Your task to perform on an android device: check out phone information Image 0: 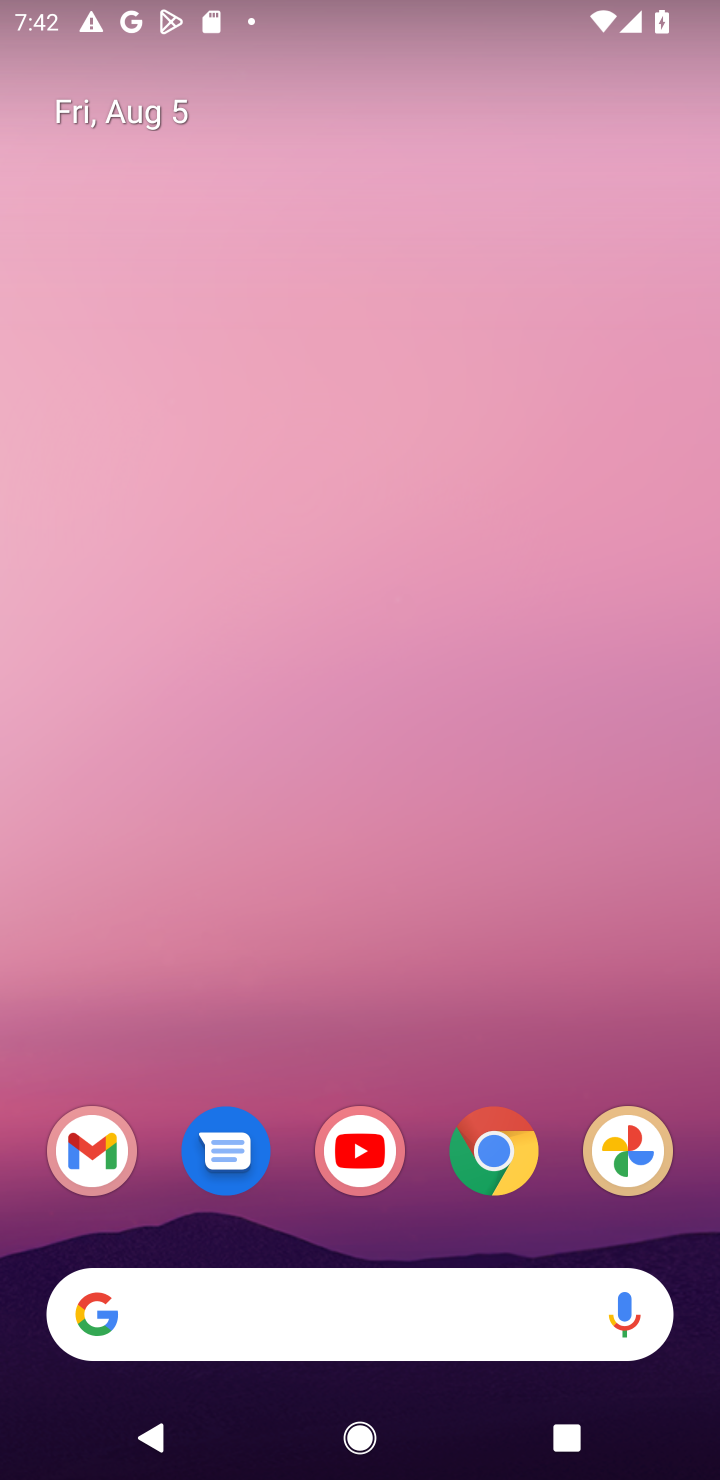
Step 0: drag from (299, 709) to (321, 19)
Your task to perform on an android device: check out phone information Image 1: 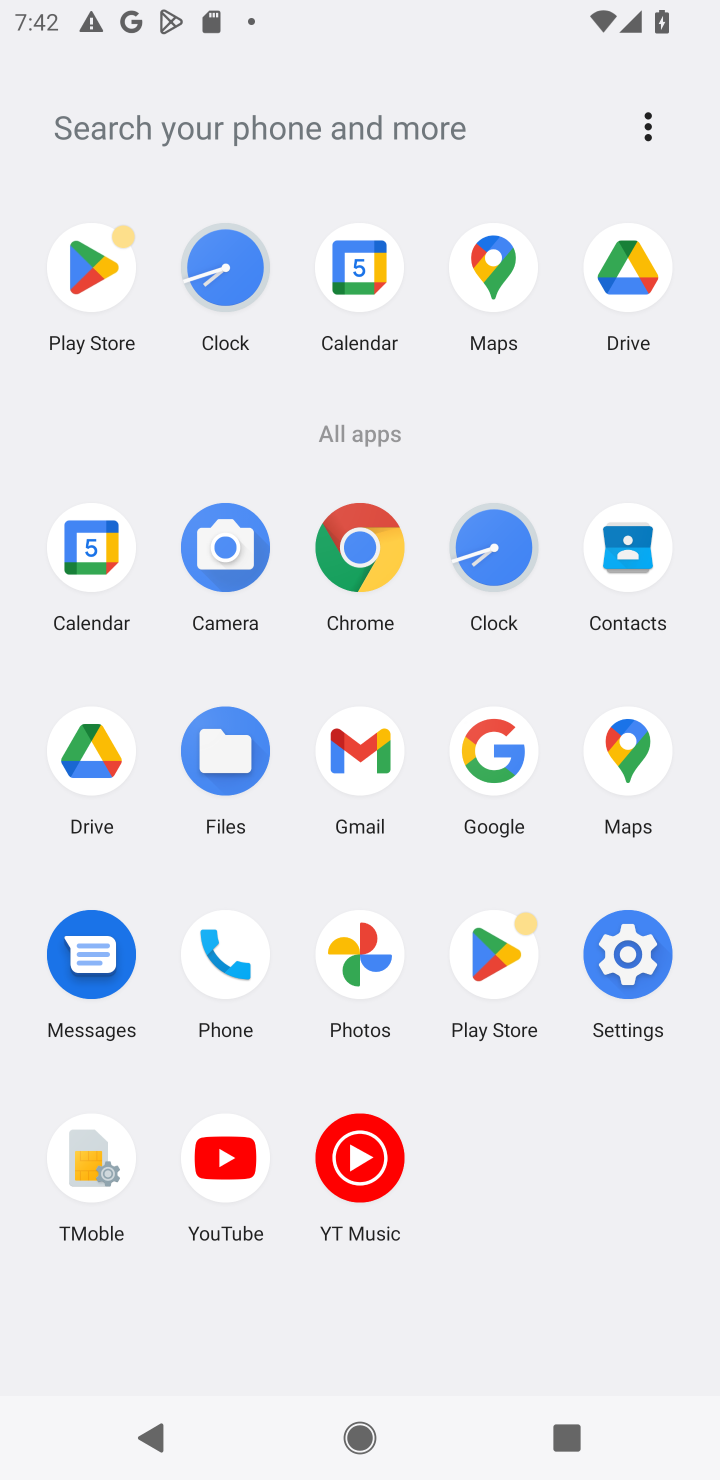
Step 1: click (643, 984)
Your task to perform on an android device: check out phone information Image 2: 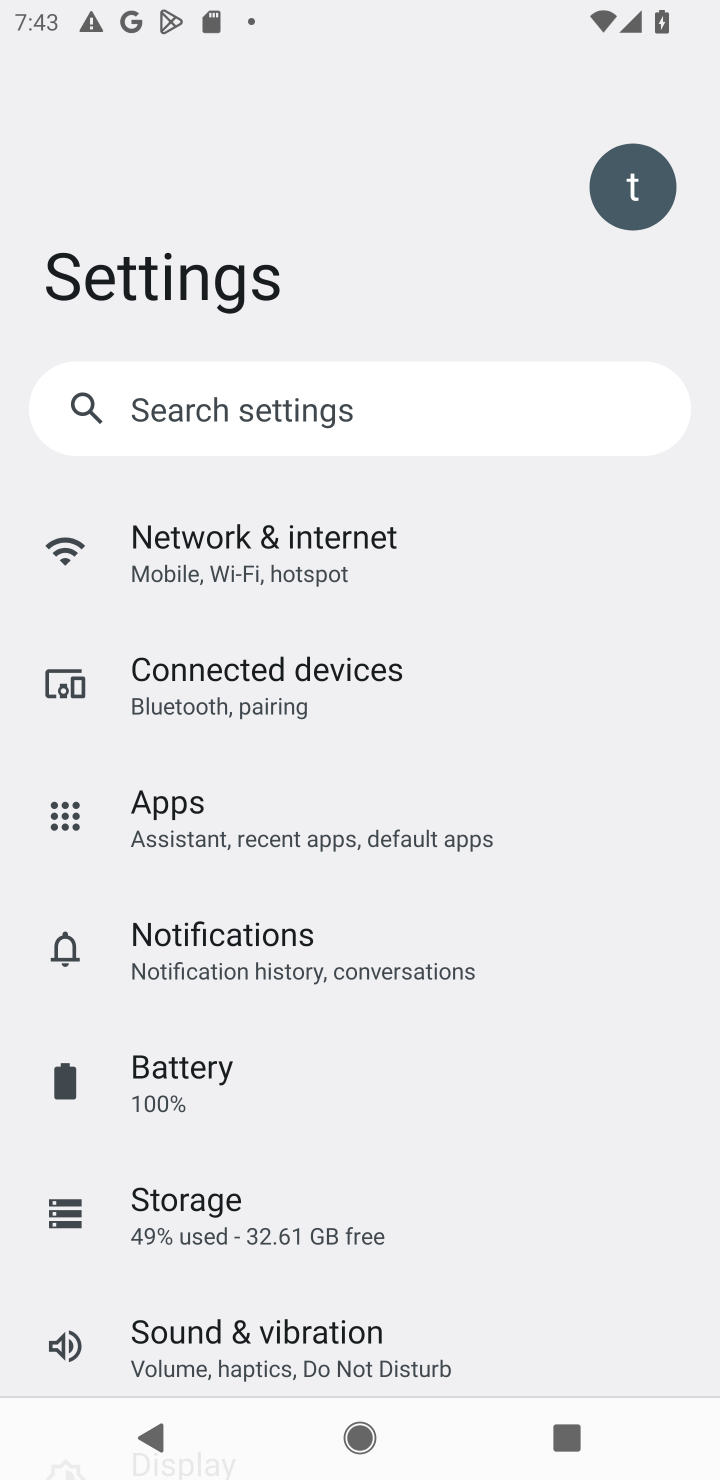
Step 2: drag from (269, 1232) to (289, 347)
Your task to perform on an android device: check out phone information Image 3: 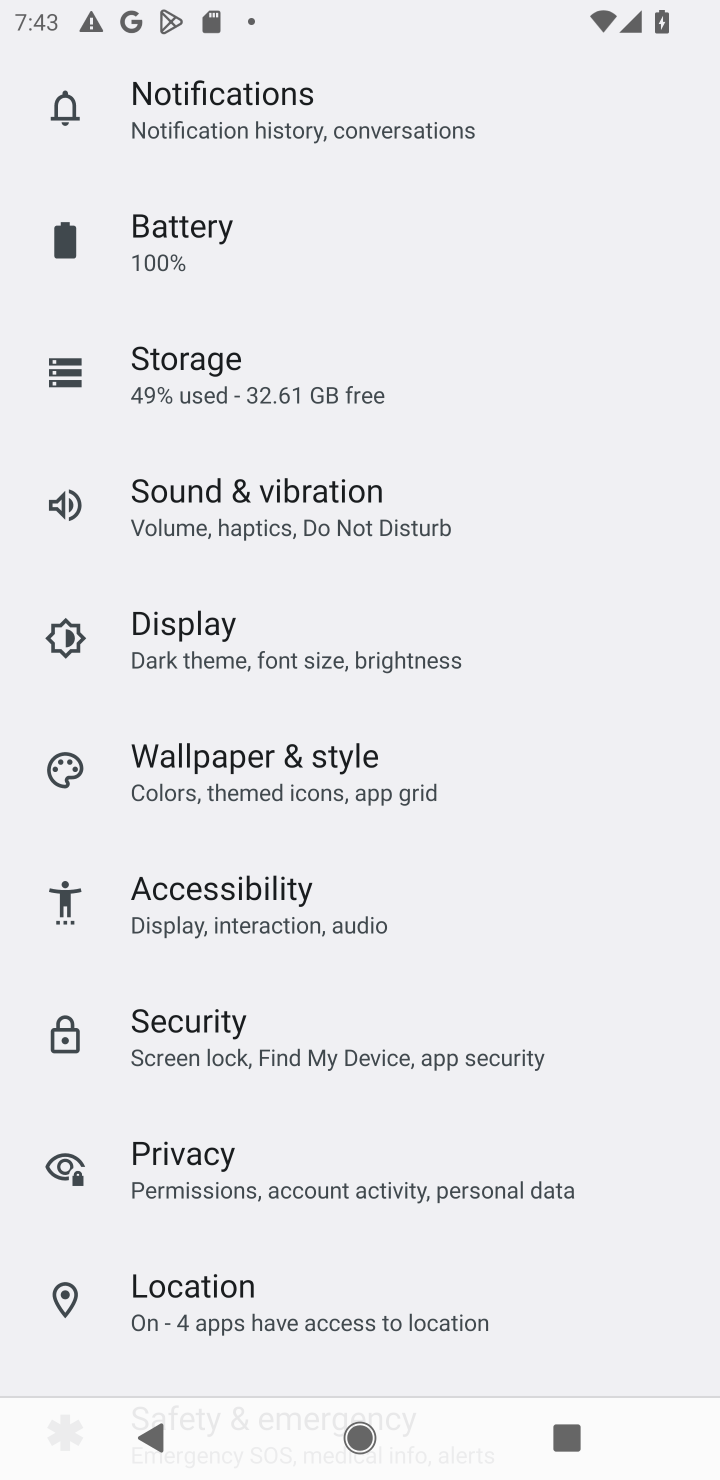
Step 3: drag from (364, 1215) to (273, 84)
Your task to perform on an android device: check out phone information Image 4: 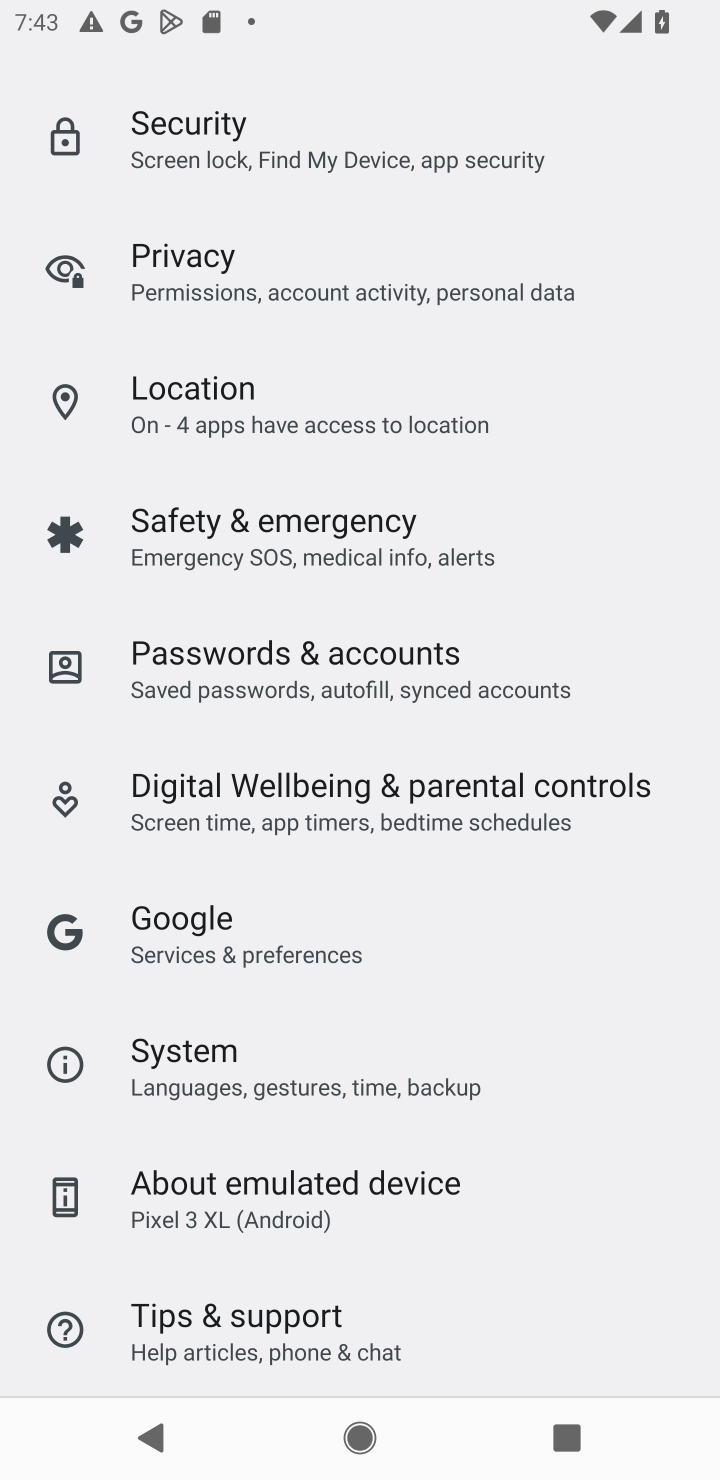
Step 4: drag from (399, 1312) to (376, 701)
Your task to perform on an android device: check out phone information Image 5: 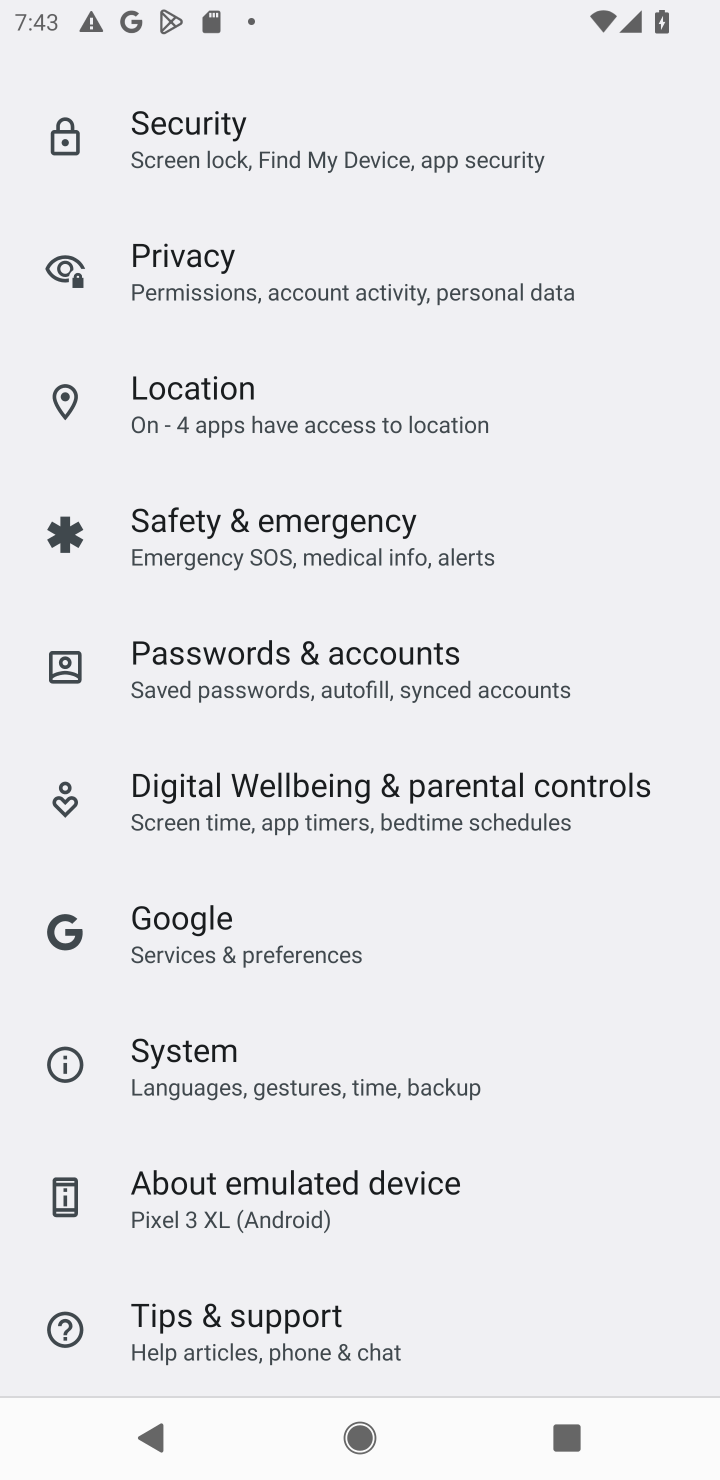
Step 5: click (270, 1192)
Your task to perform on an android device: check out phone information Image 6: 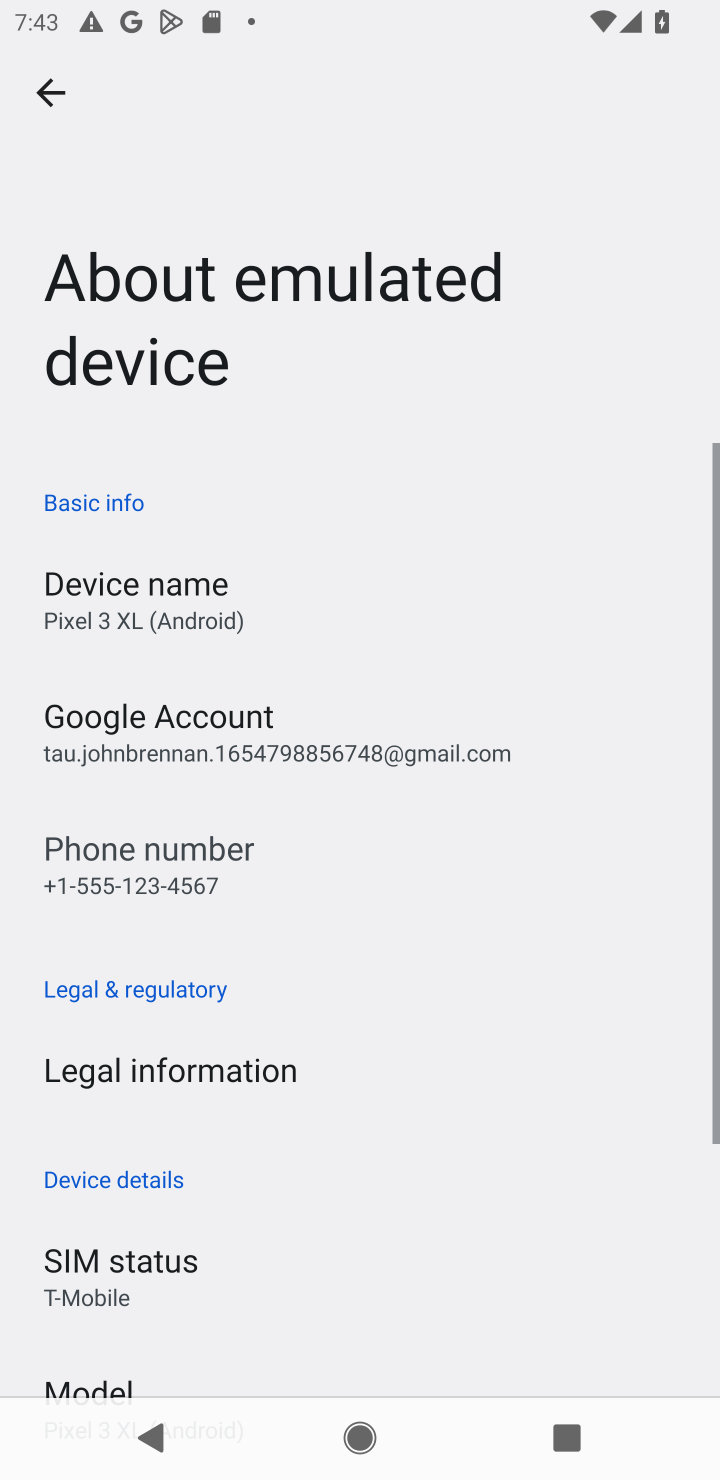
Step 6: task complete